Your task to perform on an android device: open a new tab in the chrome app Image 0: 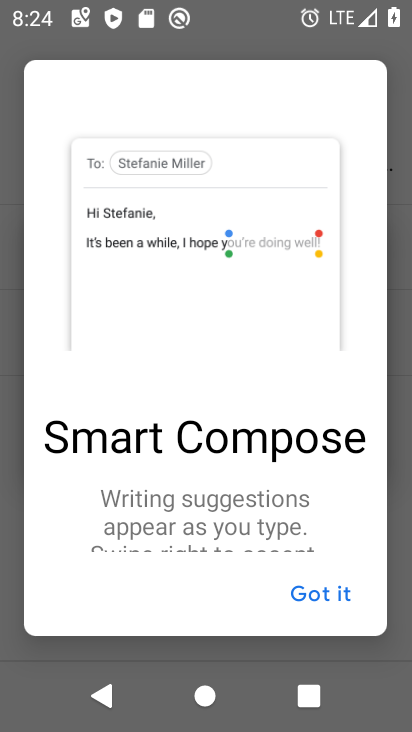
Step 0: press home button
Your task to perform on an android device: open a new tab in the chrome app Image 1: 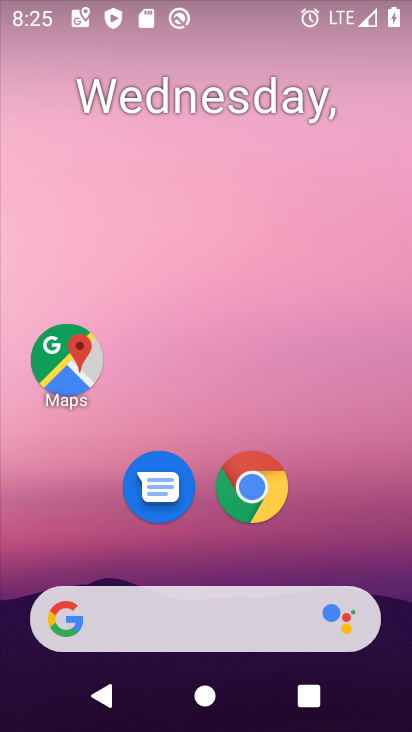
Step 1: click (256, 493)
Your task to perform on an android device: open a new tab in the chrome app Image 2: 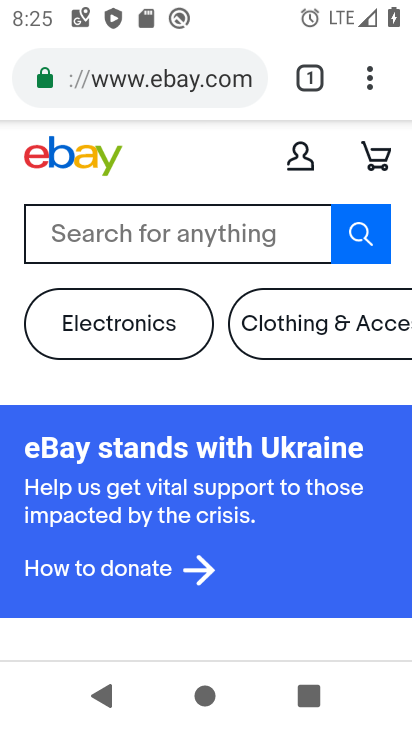
Step 2: click (370, 78)
Your task to perform on an android device: open a new tab in the chrome app Image 3: 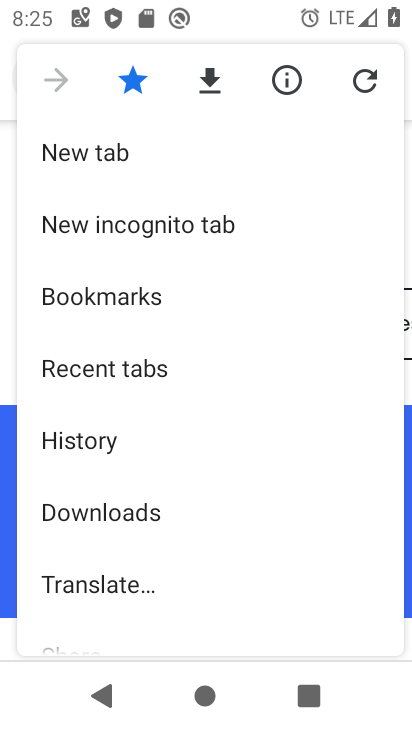
Step 3: click (64, 158)
Your task to perform on an android device: open a new tab in the chrome app Image 4: 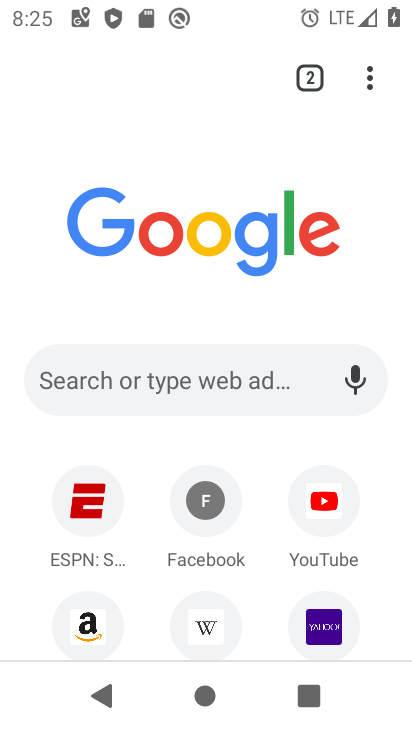
Step 4: task complete